Your task to perform on an android device: see sites visited before in the chrome app Image 0: 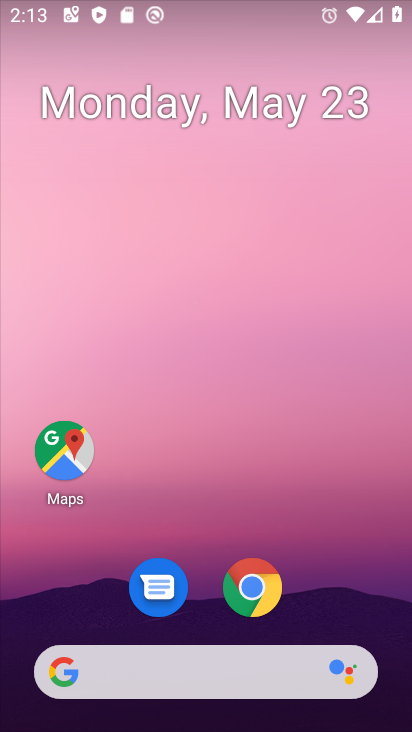
Step 0: click (268, 579)
Your task to perform on an android device: see sites visited before in the chrome app Image 1: 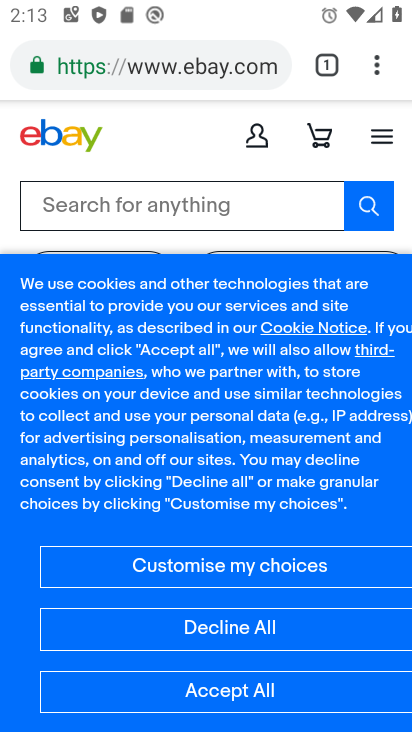
Step 1: click (389, 78)
Your task to perform on an android device: see sites visited before in the chrome app Image 2: 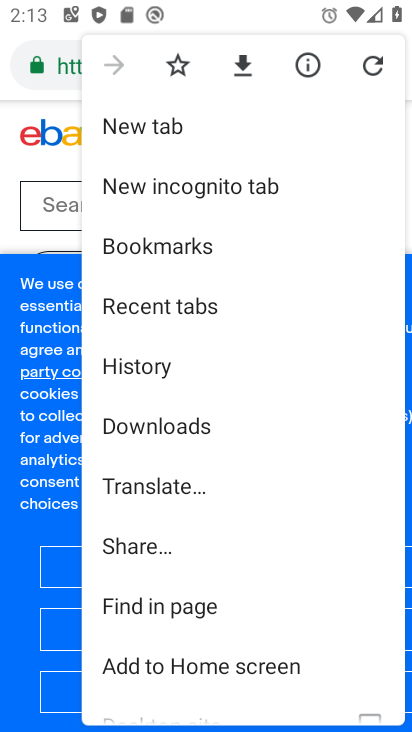
Step 2: drag from (235, 545) to (249, 428)
Your task to perform on an android device: see sites visited before in the chrome app Image 3: 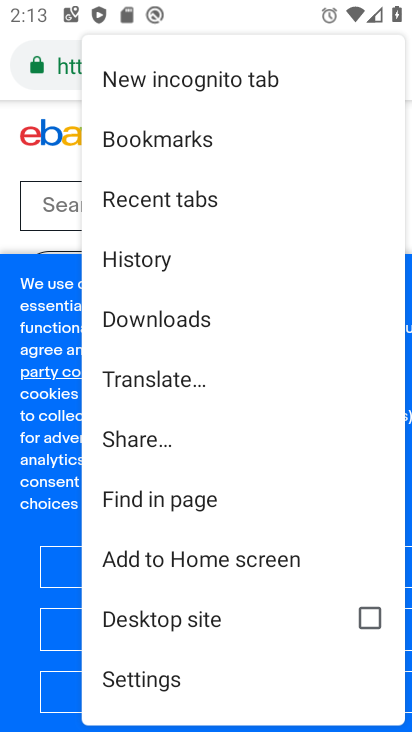
Step 3: click (251, 331)
Your task to perform on an android device: see sites visited before in the chrome app Image 4: 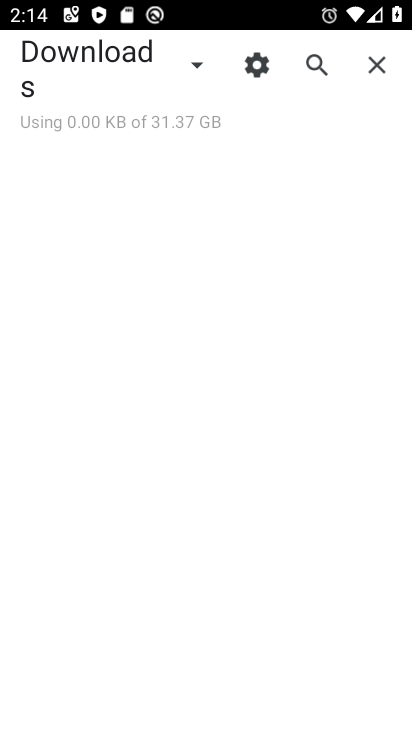
Step 4: task complete